Your task to perform on an android device: Go to privacy settings Image 0: 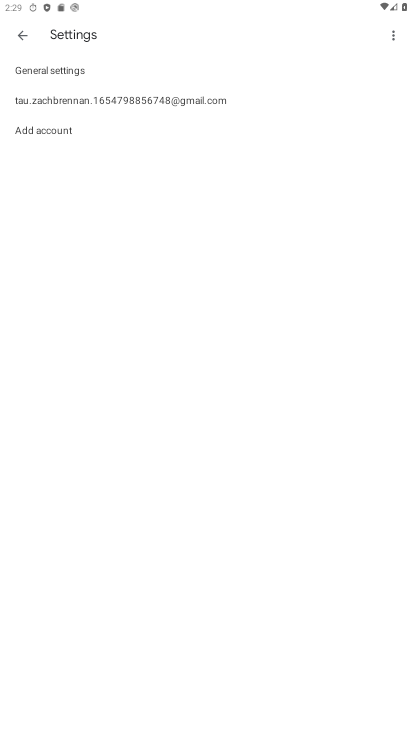
Step 0: press home button
Your task to perform on an android device: Go to privacy settings Image 1: 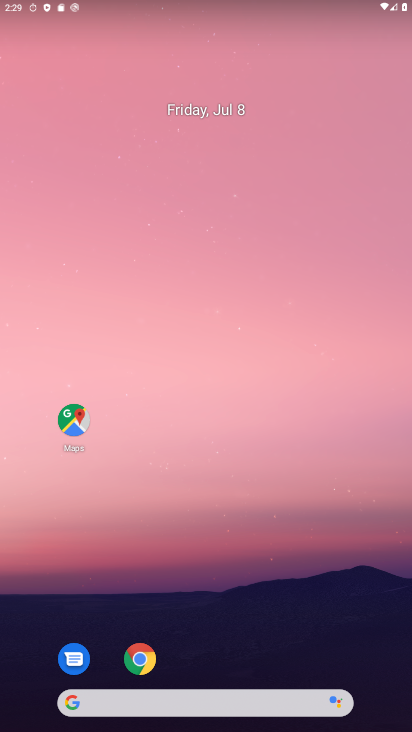
Step 1: drag from (203, 657) to (286, 17)
Your task to perform on an android device: Go to privacy settings Image 2: 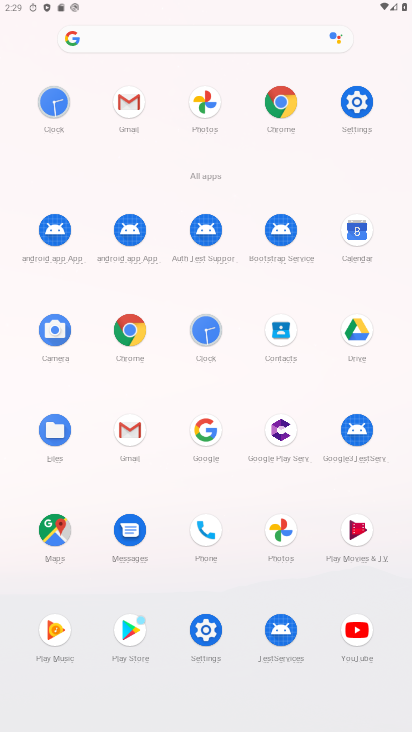
Step 2: click (363, 103)
Your task to perform on an android device: Go to privacy settings Image 3: 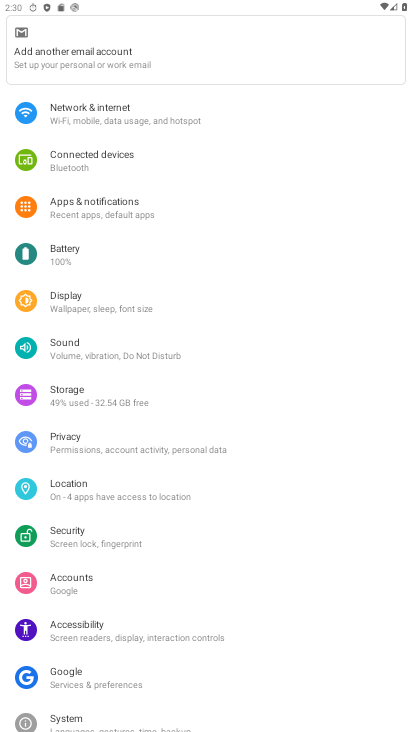
Step 3: click (117, 446)
Your task to perform on an android device: Go to privacy settings Image 4: 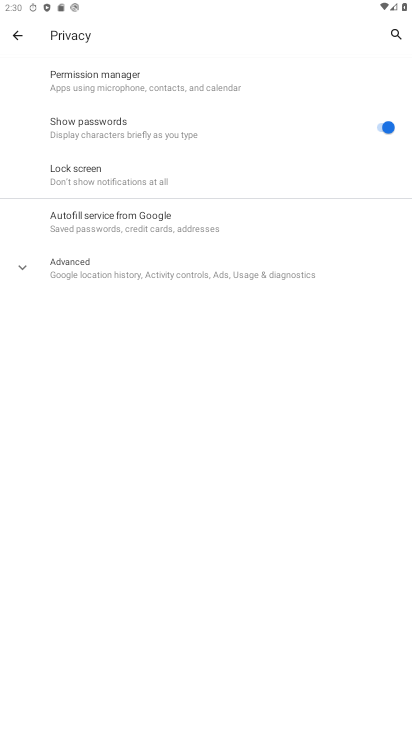
Step 4: task complete